Your task to perform on an android device: Find coffee shops on Maps Image 0: 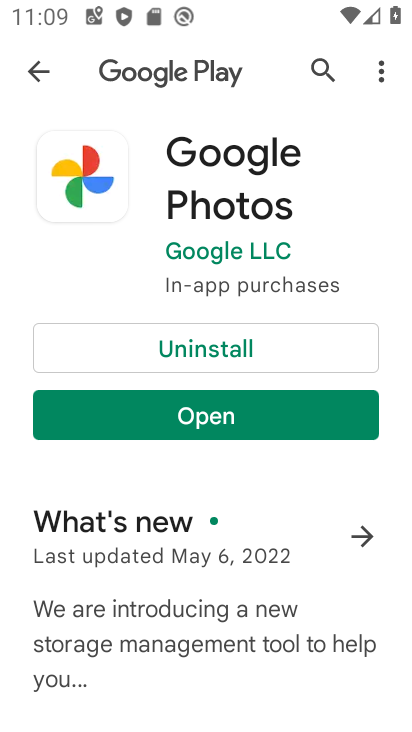
Step 0: press home button
Your task to perform on an android device: Find coffee shops on Maps Image 1: 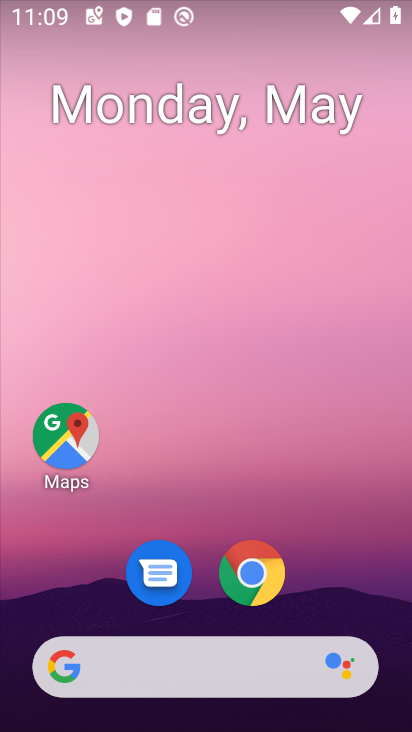
Step 1: click (72, 435)
Your task to perform on an android device: Find coffee shops on Maps Image 2: 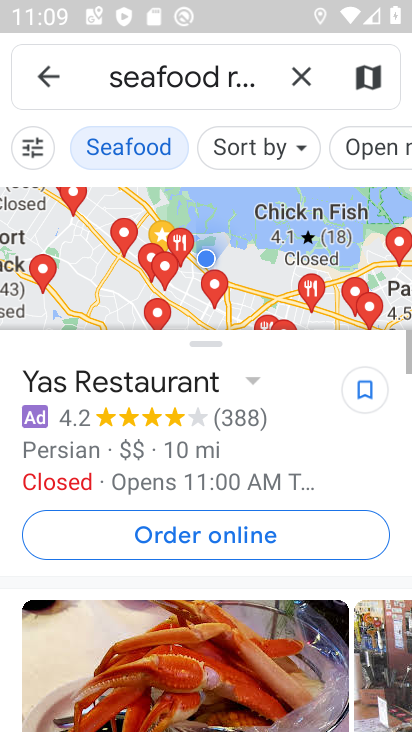
Step 2: click (298, 77)
Your task to perform on an android device: Find coffee shops on Maps Image 3: 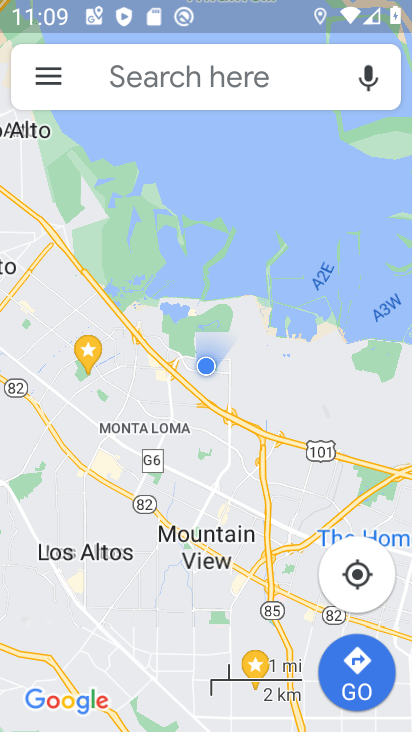
Step 3: click (161, 77)
Your task to perform on an android device: Find coffee shops on Maps Image 4: 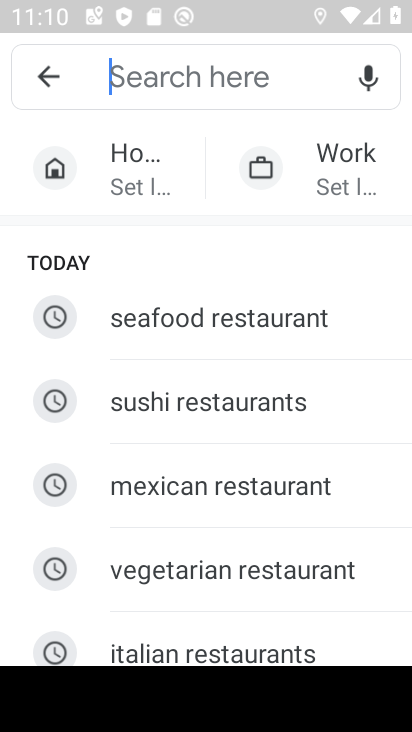
Step 4: drag from (268, 580) to (250, 267)
Your task to perform on an android device: Find coffee shops on Maps Image 5: 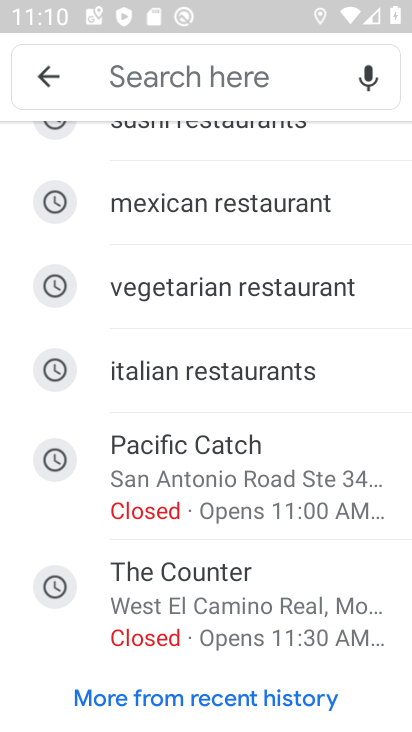
Step 5: click (208, 83)
Your task to perform on an android device: Find coffee shops on Maps Image 6: 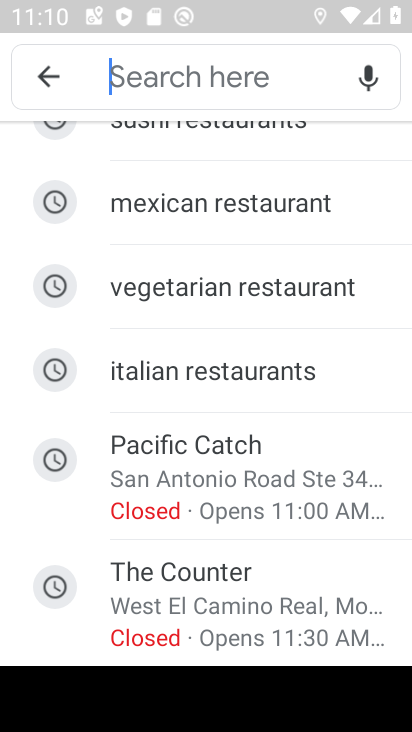
Step 6: type "coffee shops"
Your task to perform on an android device: Find coffee shops on Maps Image 7: 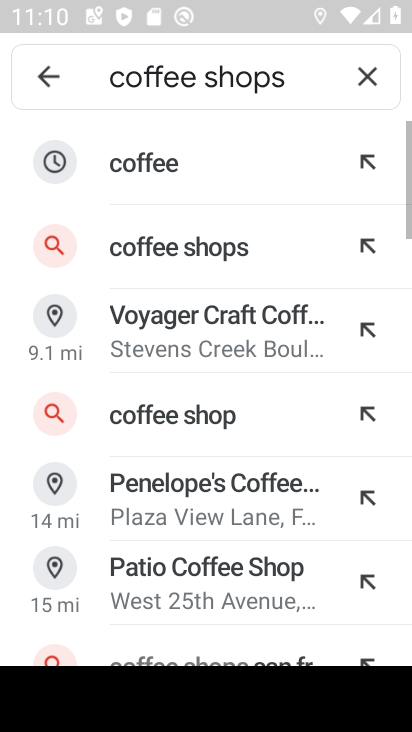
Step 7: click (232, 243)
Your task to perform on an android device: Find coffee shops on Maps Image 8: 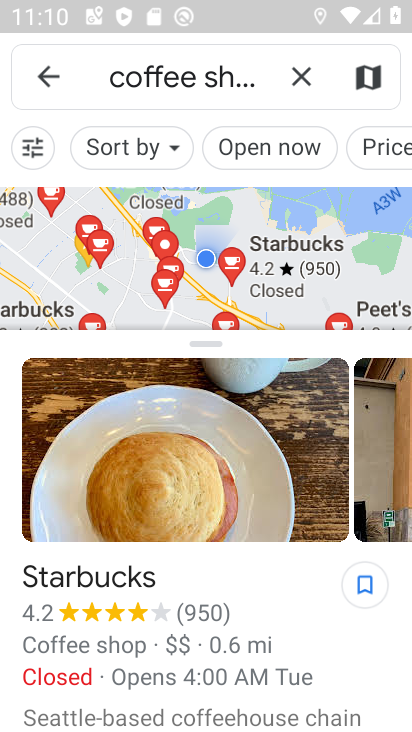
Step 8: task complete